Your task to perform on an android device: open a new tab in the chrome app Image 0: 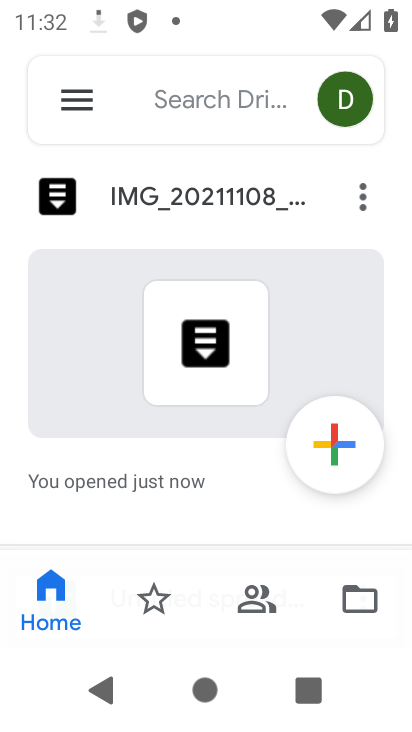
Step 0: press home button
Your task to perform on an android device: open a new tab in the chrome app Image 1: 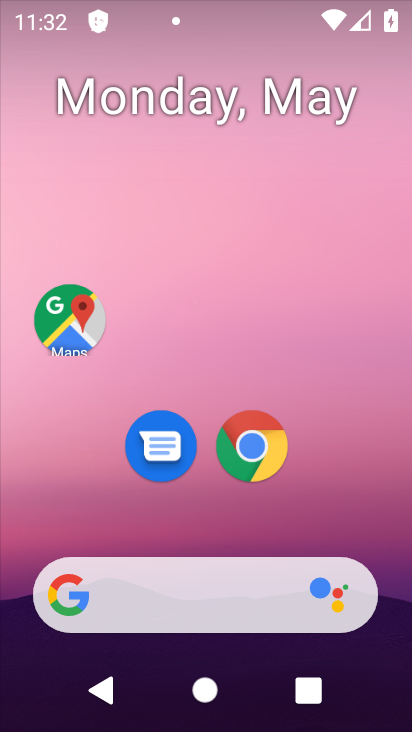
Step 1: drag from (299, 517) to (286, 198)
Your task to perform on an android device: open a new tab in the chrome app Image 2: 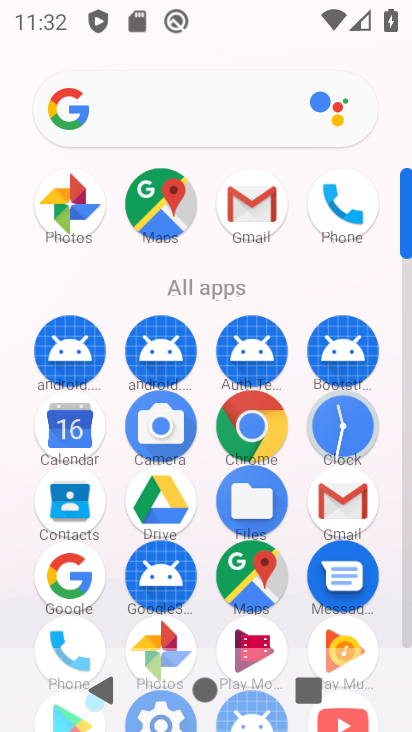
Step 2: click (260, 421)
Your task to perform on an android device: open a new tab in the chrome app Image 3: 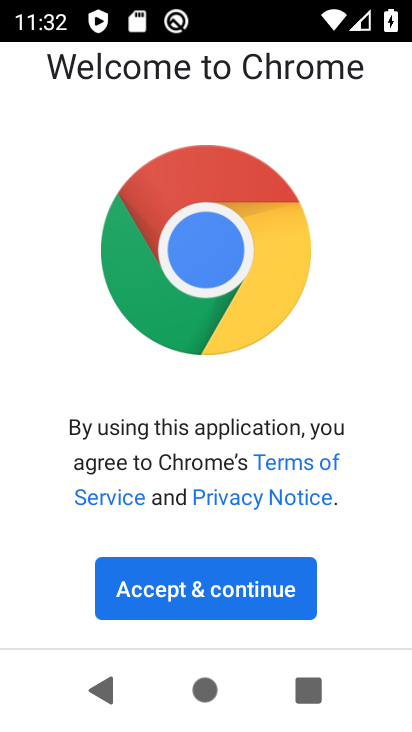
Step 3: click (183, 574)
Your task to perform on an android device: open a new tab in the chrome app Image 4: 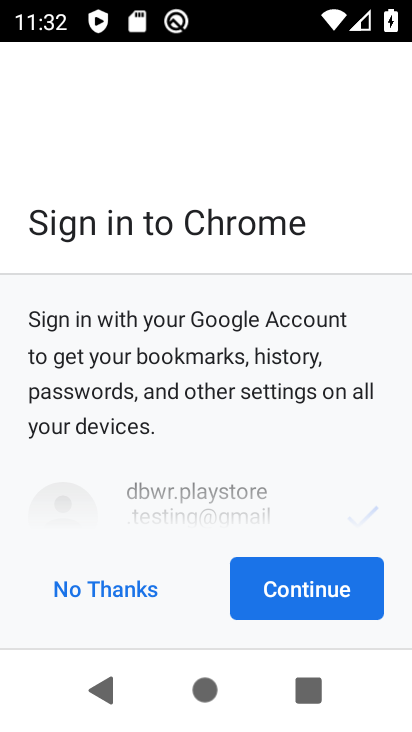
Step 4: click (250, 587)
Your task to perform on an android device: open a new tab in the chrome app Image 5: 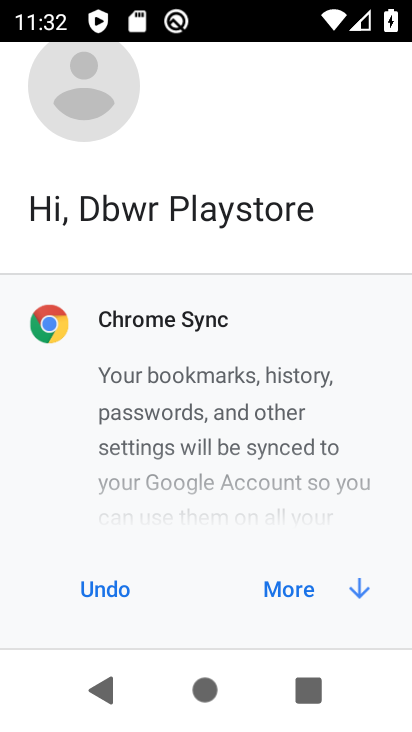
Step 5: click (250, 587)
Your task to perform on an android device: open a new tab in the chrome app Image 6: 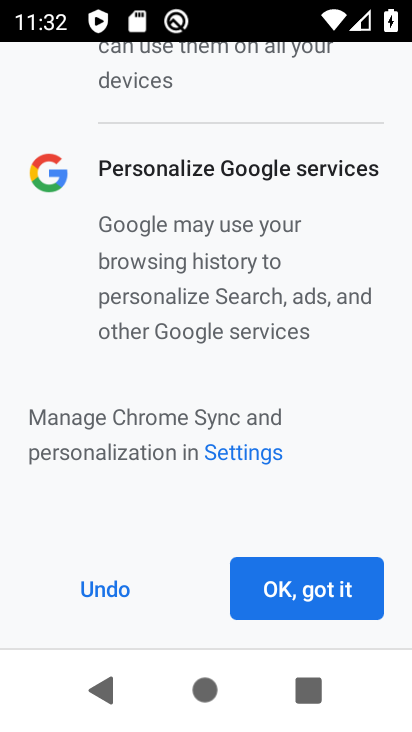
Step 6: click (272, 588)
Your task to perform on an android device: open a new tab in the chrome app Image 7: 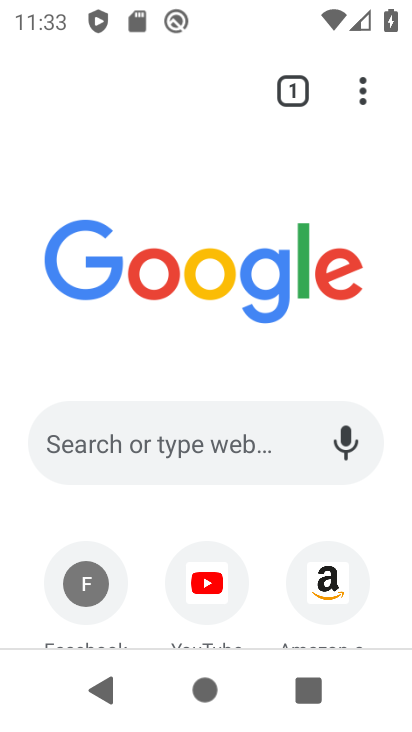
Step 7: task complete